Your task to perform on an android device: Go to Yahoo.com Image 0: 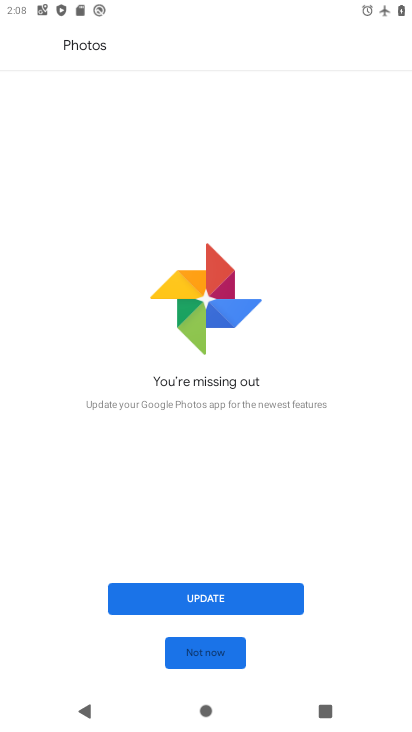
Step 0: click (192, 655)
Your task to perform on an android device: Go to Yahoo.com Image 1: 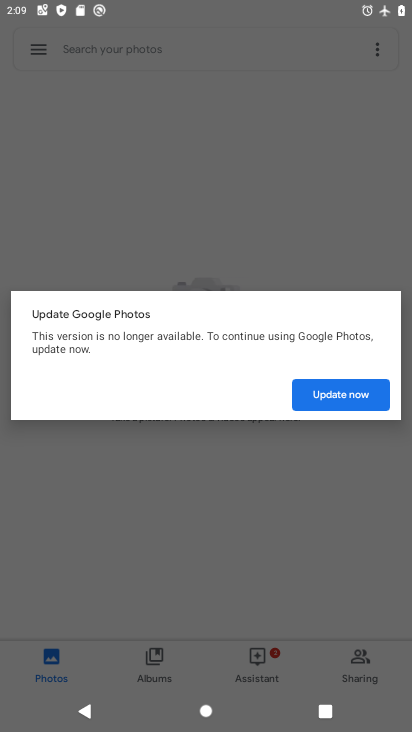
Step 1: press home button
Your task to perform on an android device: Go to Yahoo.com Image 2: 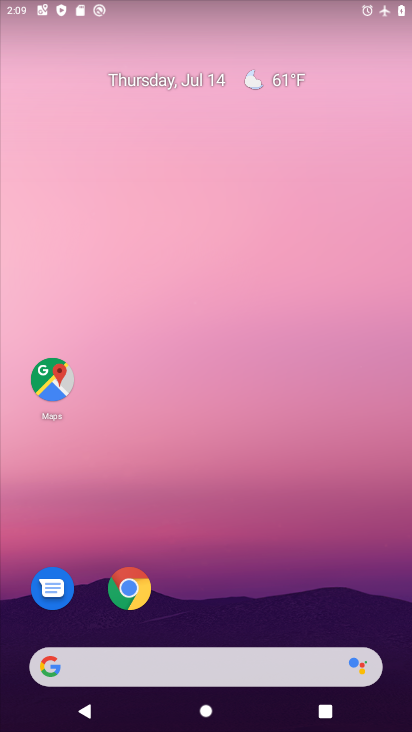
Step 2: drag from (281, 571) to (270, 200)
Your task to perform on an android device: Go to Yahoo.com Image 3: 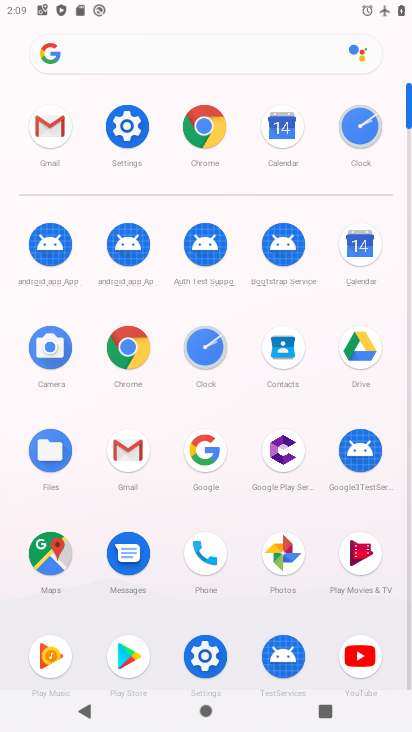
Step 3: click (212, 120)
Your task to perform on an android device: Go to Yahoo.com Image 4: 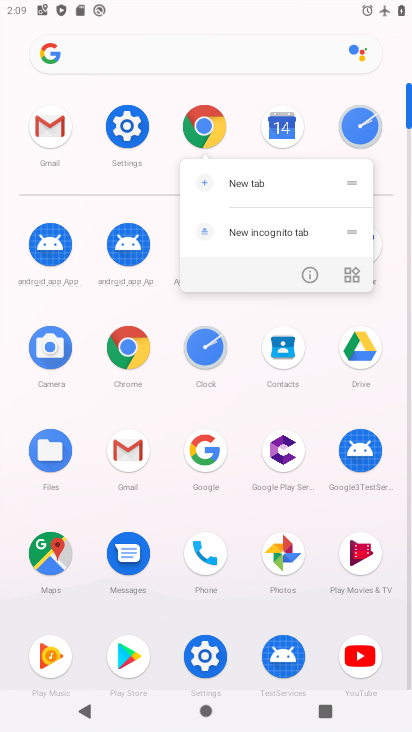
Step 4: click (213, 121)
Your task to perform on an android device: Go to Yahoo.com Image 5: 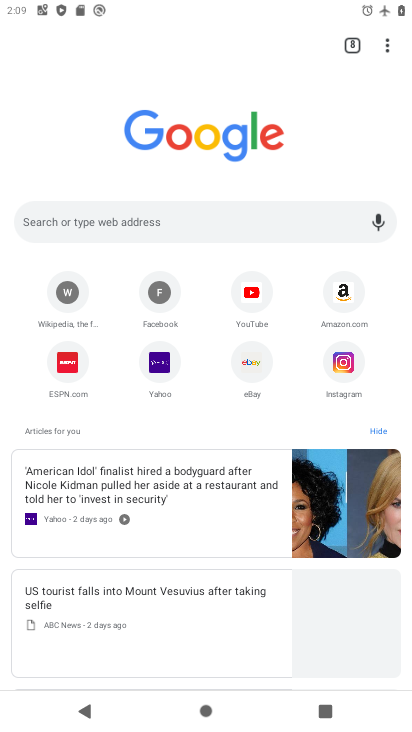
Step 5: click (159, 344)
Your task to perform on an android device: Go to Yahoo.com Image 6: 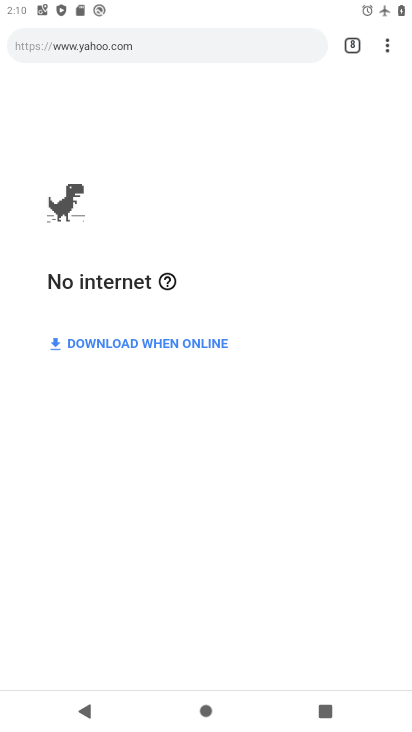
Step 6: task complete